Your task to perform on an android device: remove spam from my inbox in the gmail app Image 0: 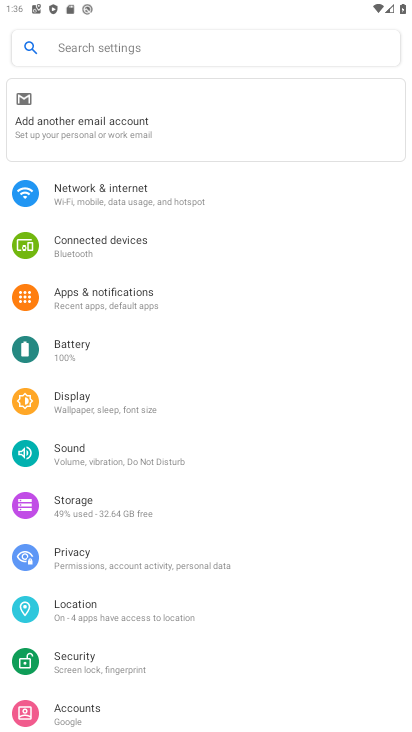
Step 0: press home button
Your task to perform on an android device: remove spam from my inbox in the gmail app Image 1: 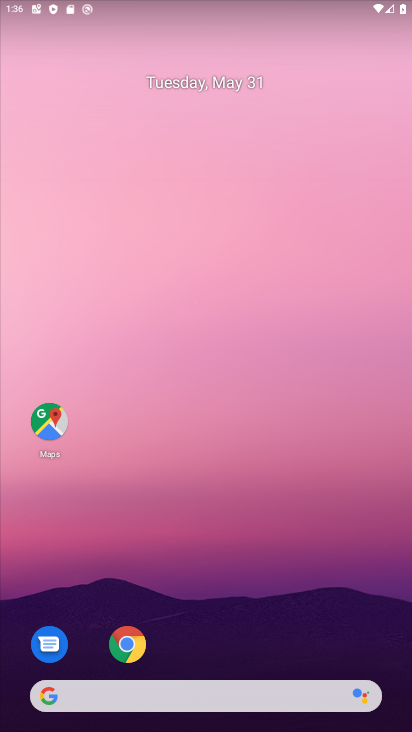
Step 1: drag from (395, 643) to (371, 269)
Your task to perform on an android device: remove spam from my inbox in the gmail app Image 2: 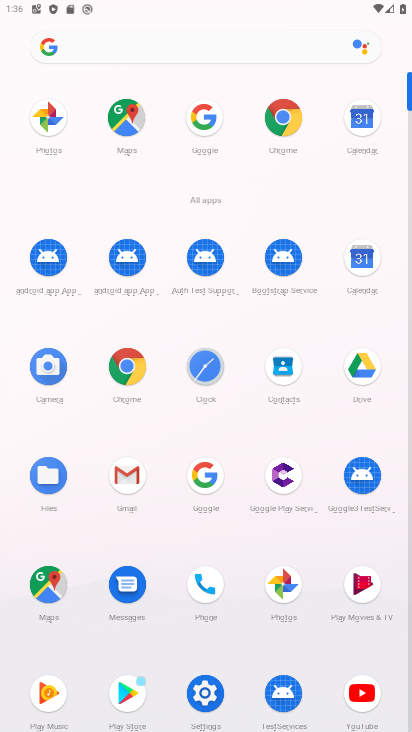
Step 2: click (110, 482)
Your task to perform on an android device: remove spam from my inbox in the gmail app Image 3: 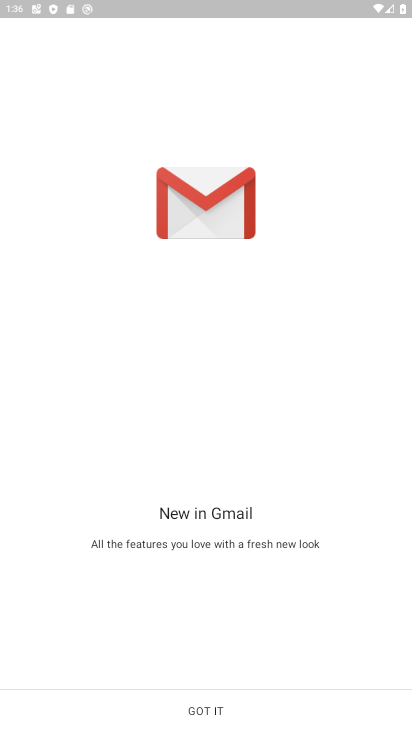
Step 3: click (215, 711)
Your task to perform on an android device: remove spam from my inbox in the gmail app Image 4: 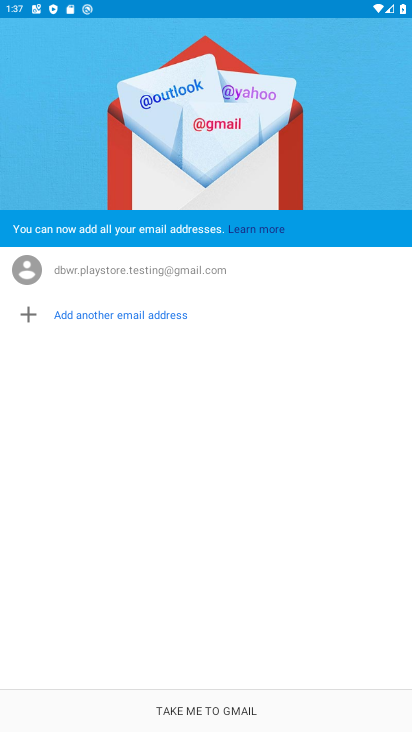
Step 4: click (159, 705)
Your task to perform on an android device: remove spam from my inbox in the gmail app Image 5: 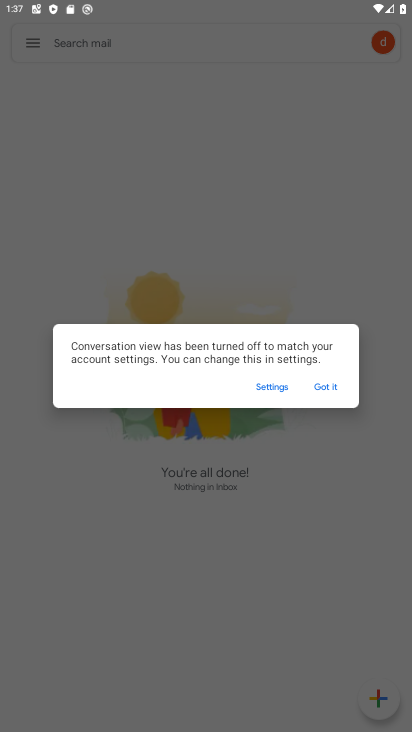
Step 5: click (327, 388)
Your task to perform on an android device: remove spam from my inbox in the gmail app Image 6: 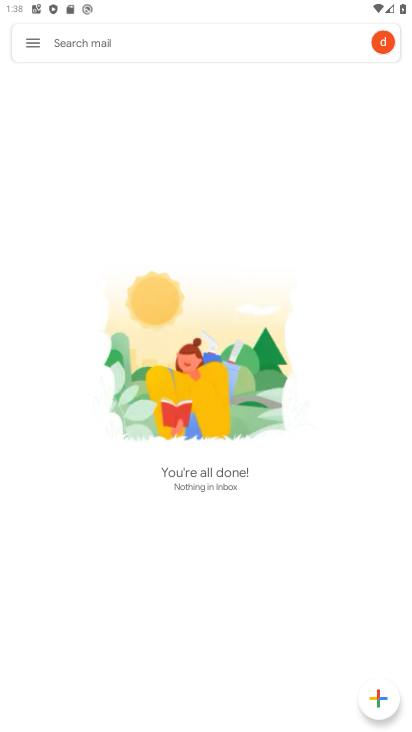
Step 6: click (25, 39)
Your task to perform on an android device: remove spam from my inbox in the gmail app Image 7: 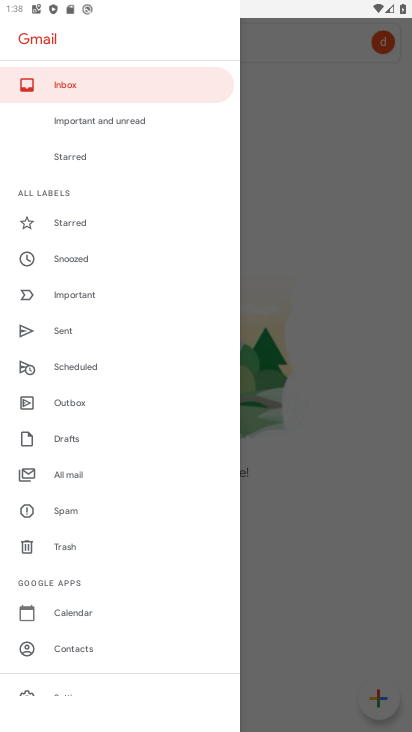
Step 7: click (54, 509)
Your task to perform on an android device: remove spam from my inbox in the gmail app Image 8: 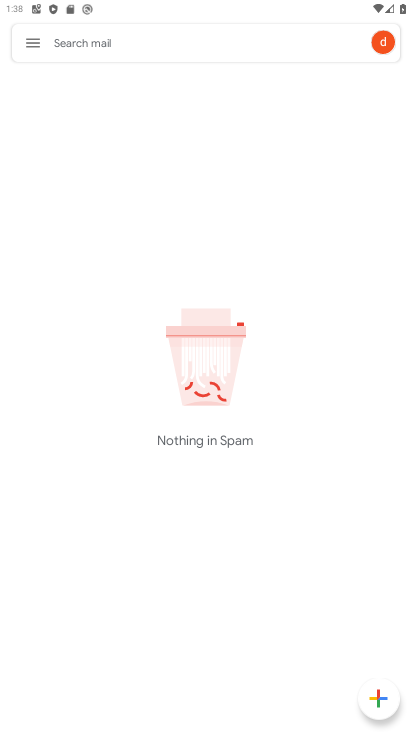
Step 8: task complete